Your task to perform on an android device: Open Google Chrome and click the shortcut for Amazon.com Image 0: 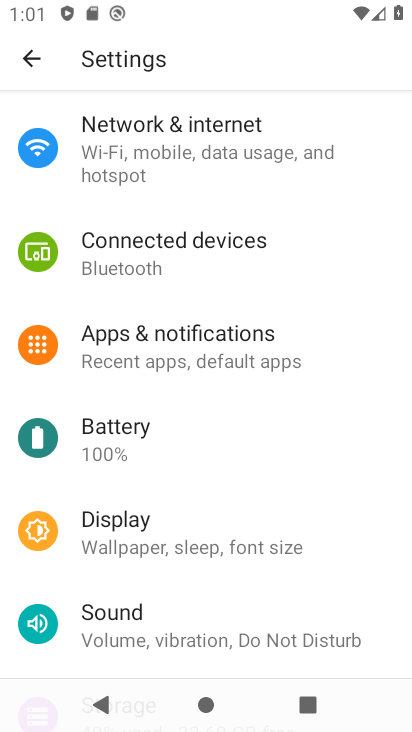
Step 0: press home button
Your task to perform on an android device: Open Google Chrome and click the shortcut for Amazon.com Image 1: 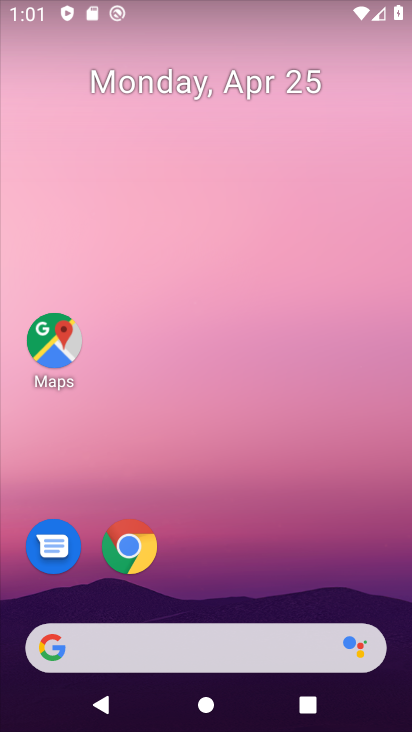
Step 1: click (128, 544)
Your task to perform on an android device: Open Google Chrome and click the shortcut for Amazon.com Image 2: 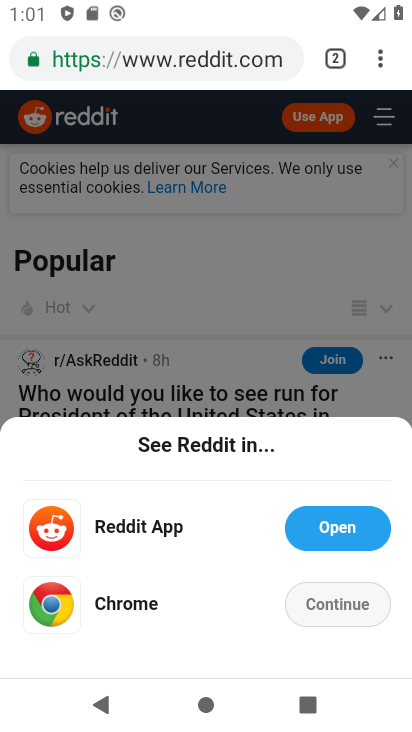
Step 2: click (320, 46)
Your task to perform on an android device: Open Google Chrome and click the shortcut for Amazon.com Image 3: 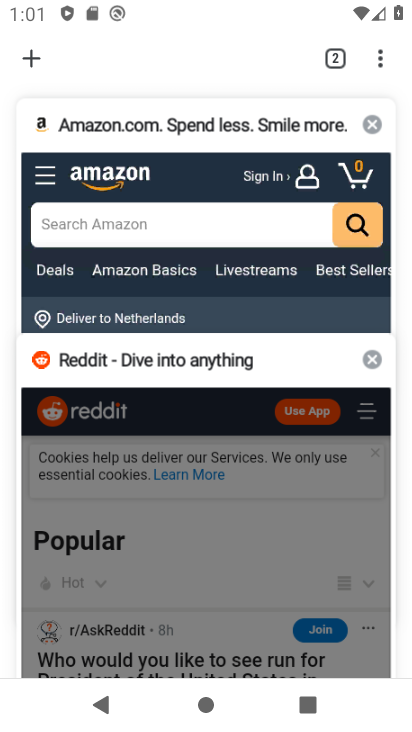
Step 3: click (23, 52)
Your task to perform on an android device: Open Google Chrome and click the shortcut for Amazon.com Image 4: 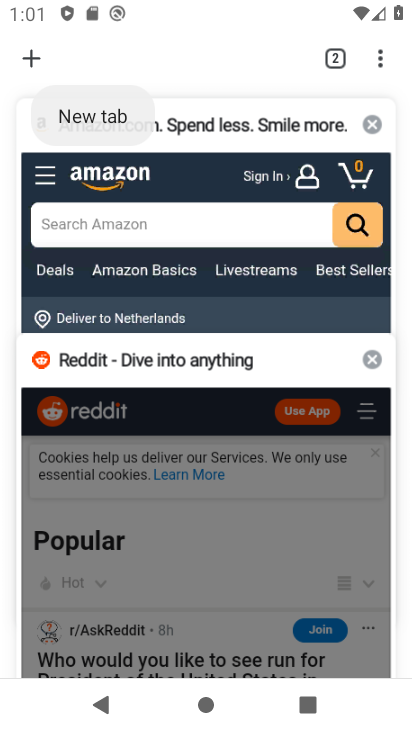
Step 4: click (28, 65)
Your task to perform on an android device: Open Google Chrome and click the shortcut for Amazon.com Image 5: 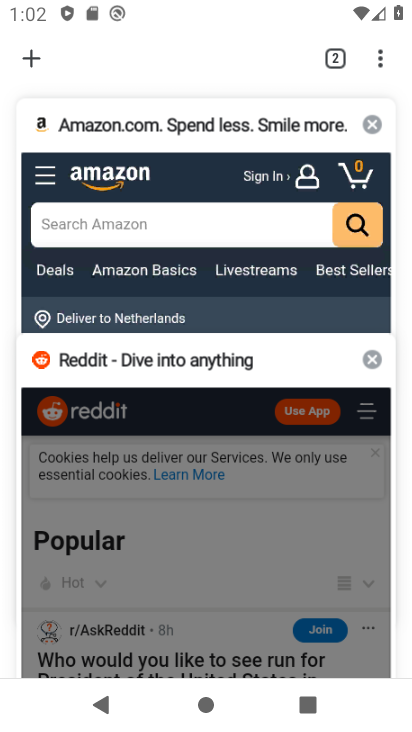
Step 5: click (31, 56)
Your task to perform on an android device: Open Google Chrome and click the shortcut for Amazon.com Image 6: 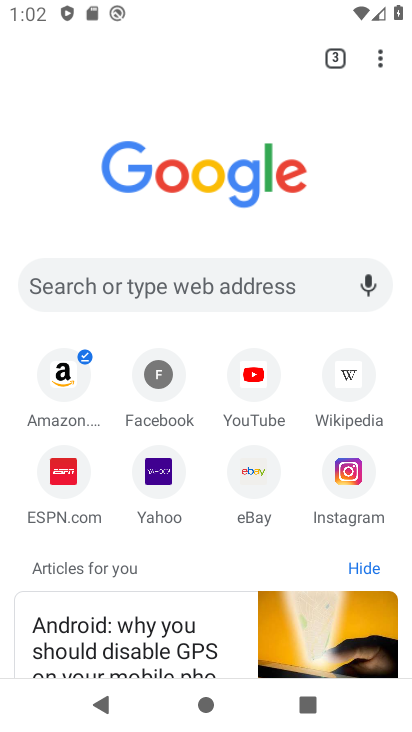
Step 6: click (60, 363)
Your task to perform on an android device: Open Google Chrome and click the shortcut for Amazon.com Image 7: 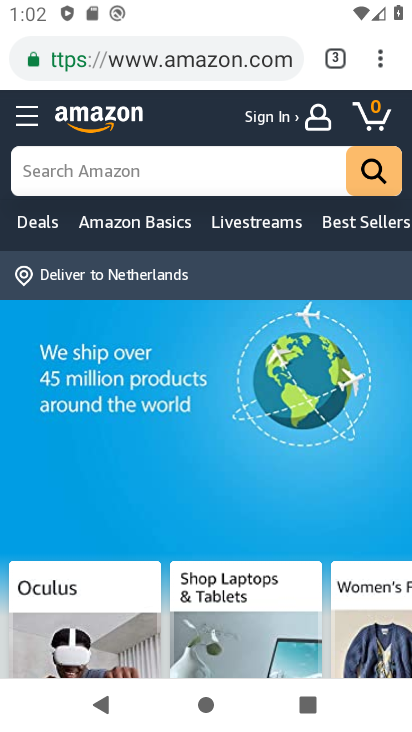
Step 7: task complete